Your task to perform on an android device: What is the news today? Image 0: 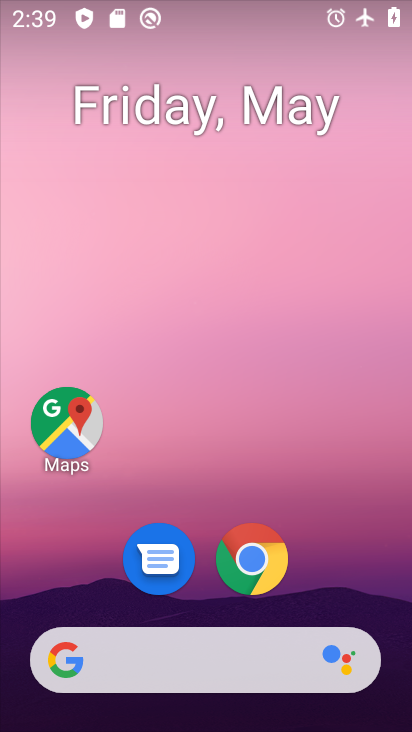
Step 0: click (234, 668)
Your task to perform on an android device: What is the news today? Image 1: 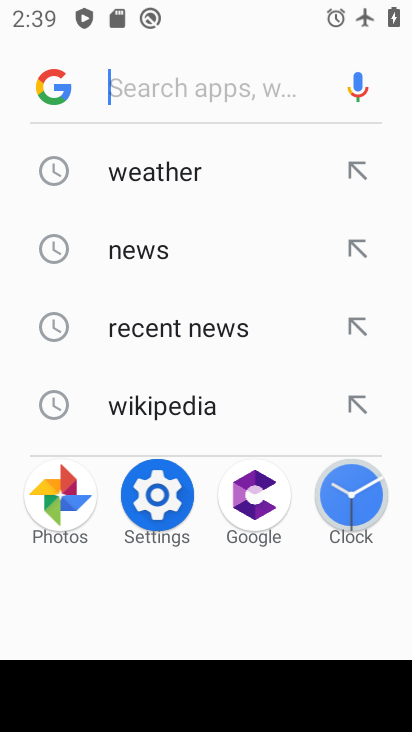
Step 1: click (151, 269)
Your task to perform on an android device: What is the news today? Image 2: 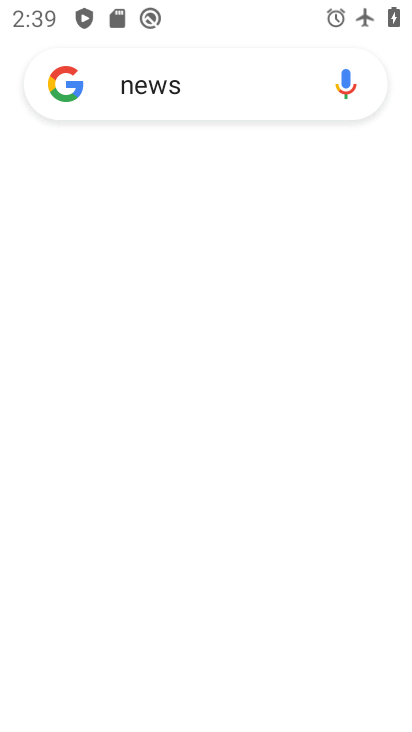
Step 2: task complete